Your task to perform on an android device: Open the stopwatch Image 0: 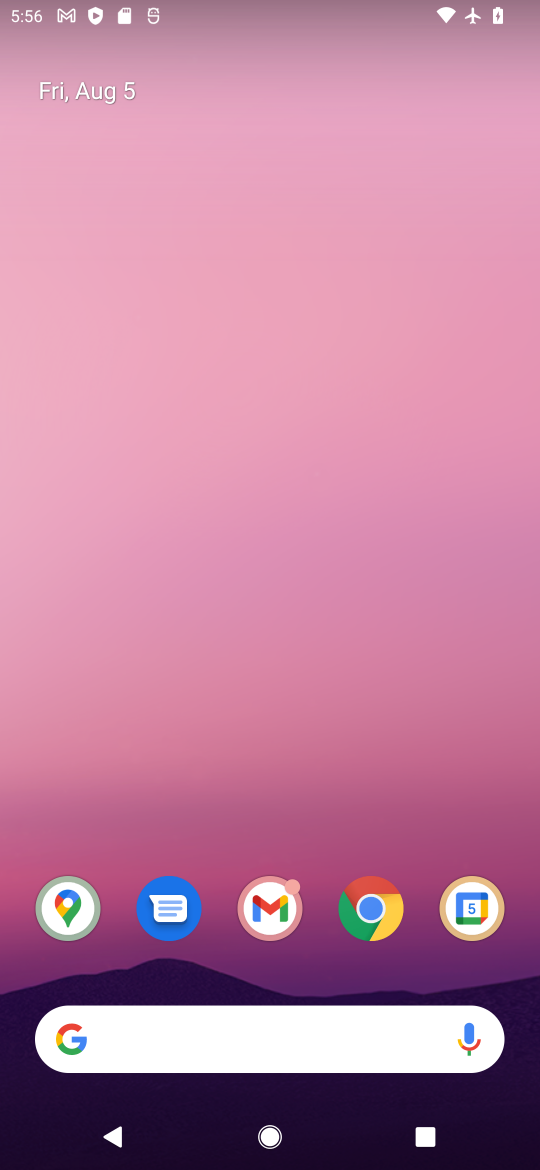
Step 0: drag from (264, 675) to (427, 48)
Your task to perform on an android device: Open the stopwatch Image 1: 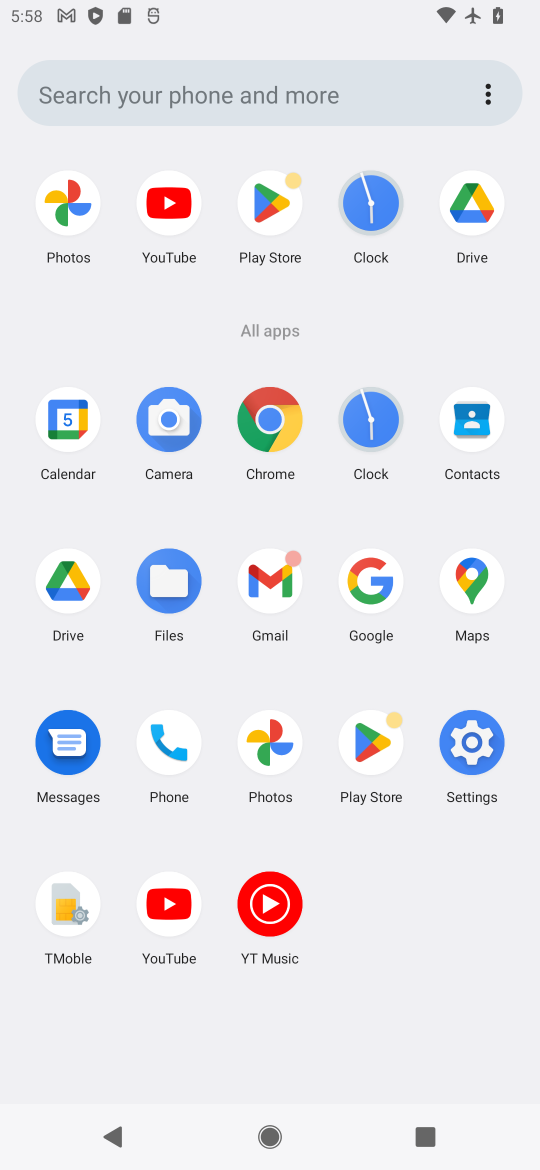
Step 1: click (362, 422)
Your task to perform on an android device: Open the stopwatch Image 2: 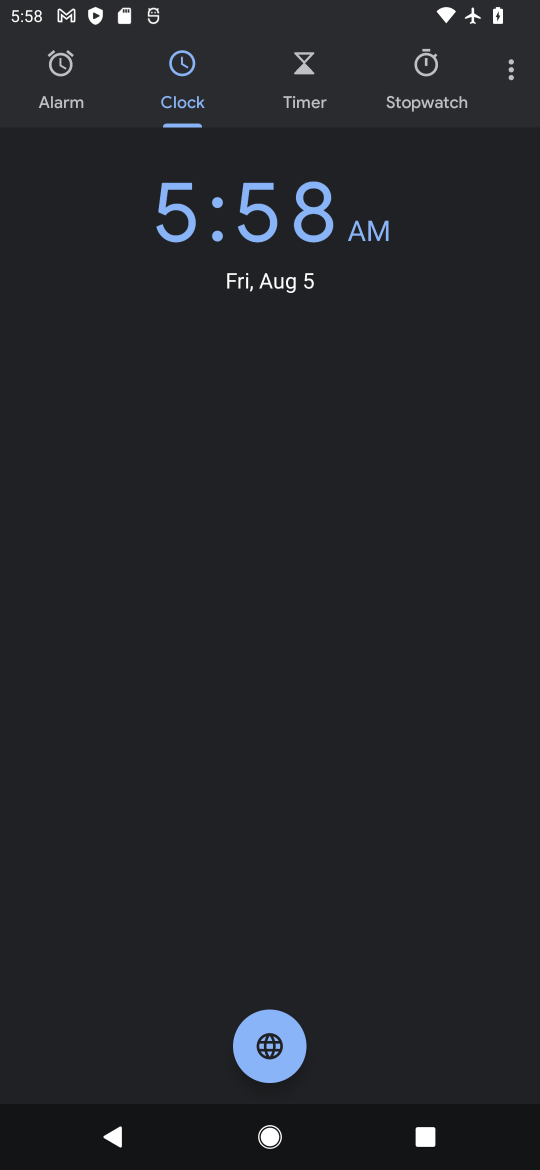
Step 2: click (445, 106)
Your task to perform on an android device: Open the stopwatch Image 3: 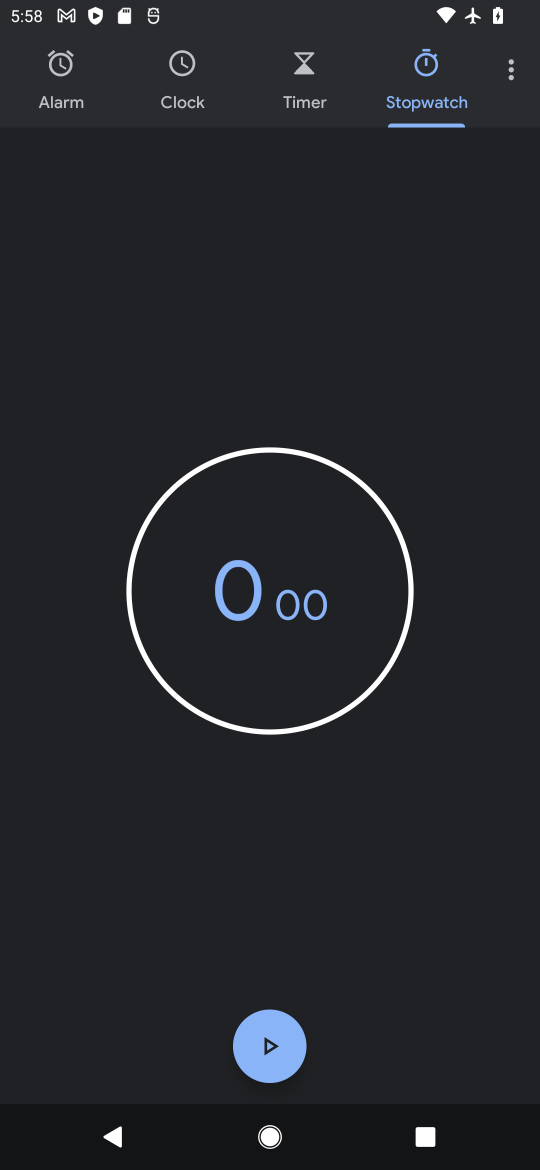
Step 3: task complete